Your task to perform on an android device: Open notification settings Image 0: 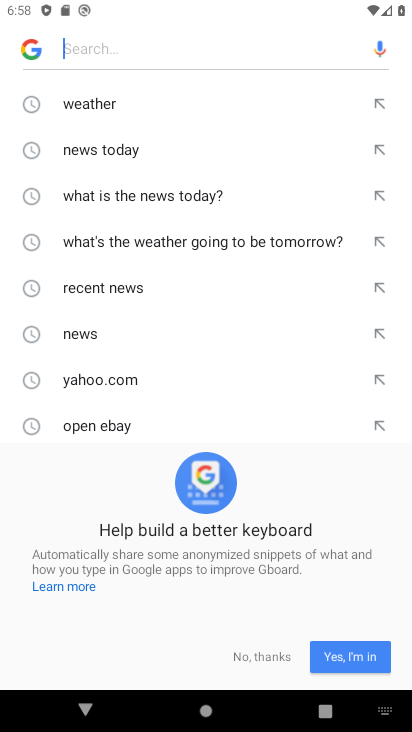
Step 0: press home button
Your task to perform on an android device: Open notification settings Image 1: 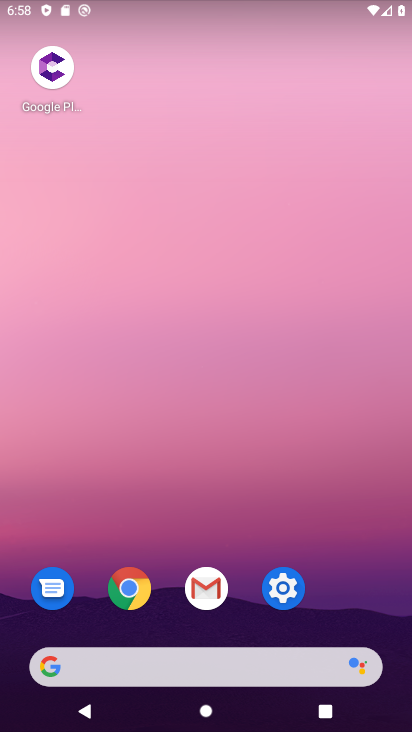
Step 1: drag from (254, 700) to (214, 258)
Your task to perform on an android device: Open notification settings Image 2: 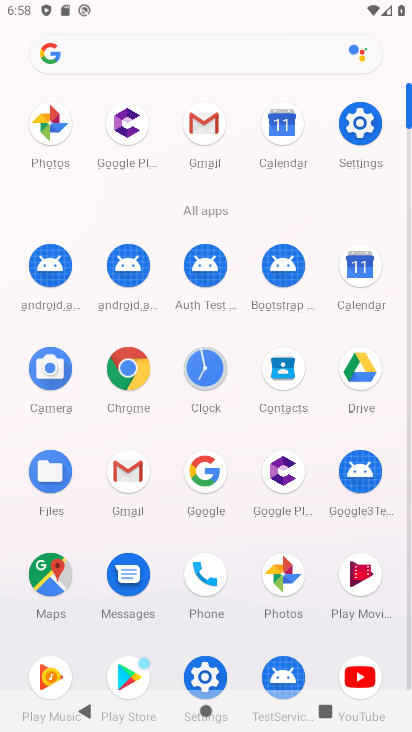
Step 2: click (368, 127)
Your task to perform on an android device: Open notification settings Image 3: 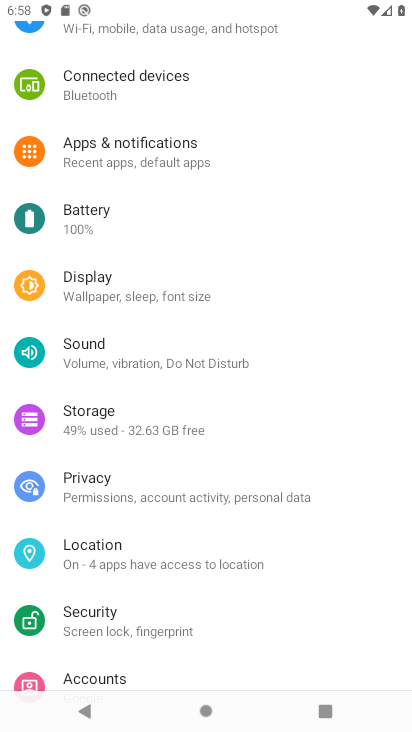
Step 3: drag from (150, 134) to (147, 343)
Your task to perform on an android device: Open notification settings Image 4: 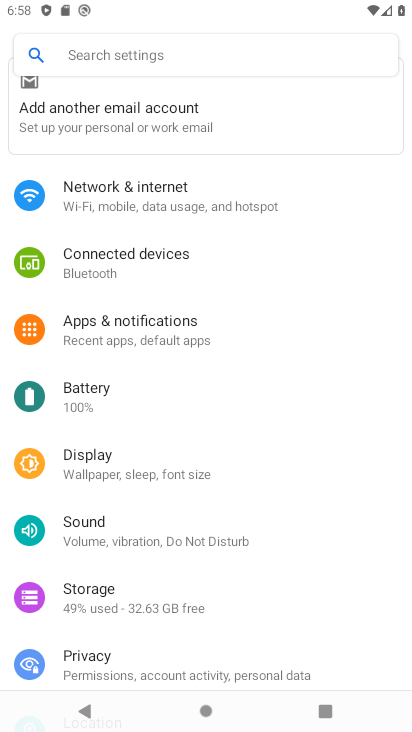
Step 4: click (141, 65)
Your task to perform on an android device: Open notification settings Image 5: 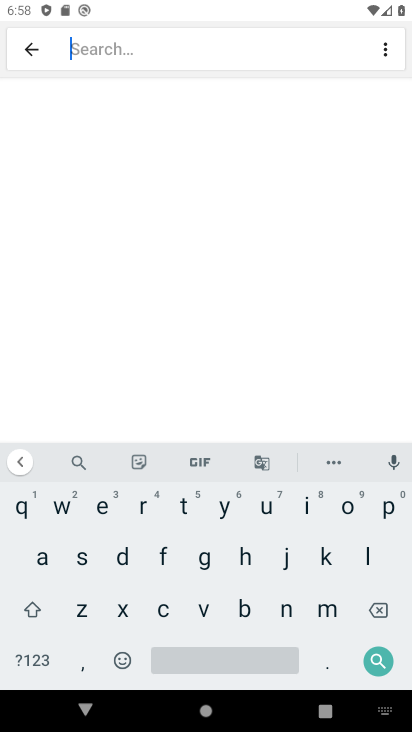
Step 5: click (285, 611)
Your task to perform on an android device: Open notification settings Image 6: 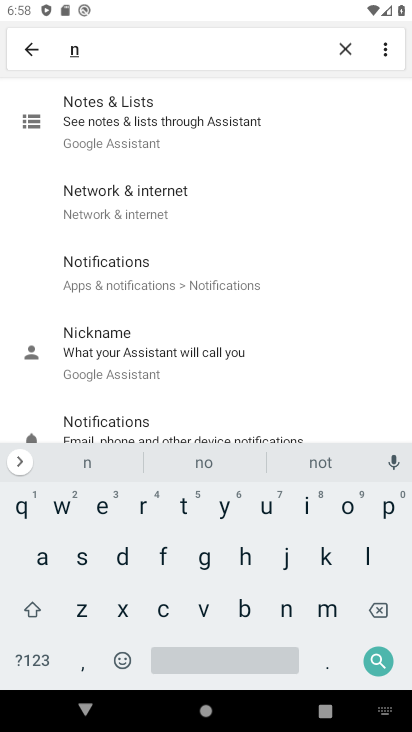
Step 6: click (338, 507)
Your task to perform on an android device: Open notification settings Image 7: 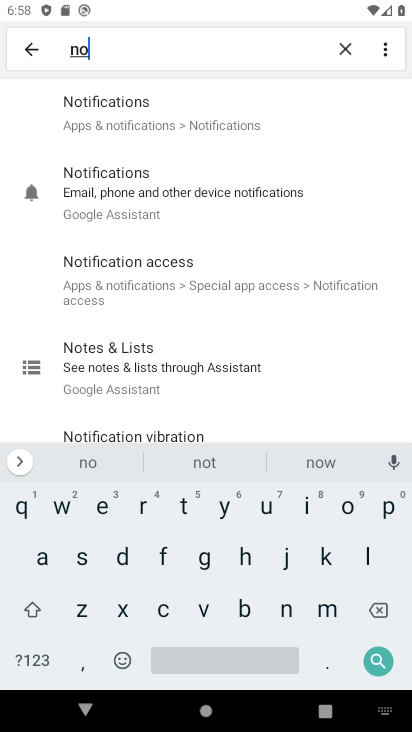
Step 7: click (133, 131)
Your task to perform on an android device: Open notification settings Image 8: 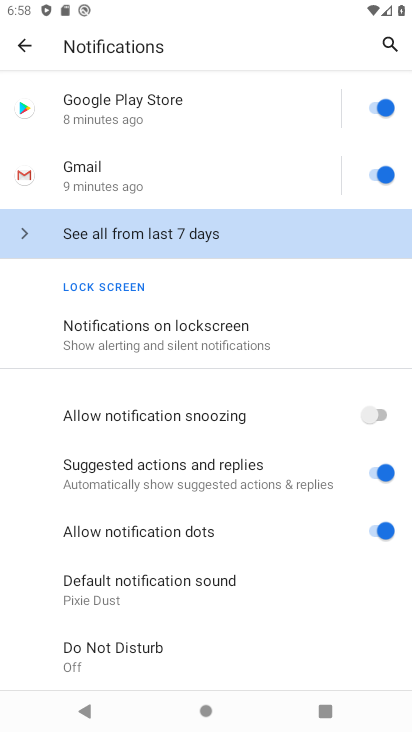
Step 8: click (126, 335)
Your task to perform on an android device: Open notification settings Image 9: 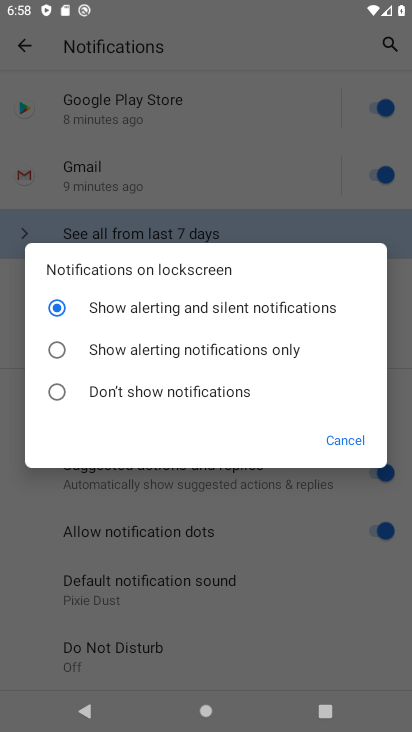
Step 9: task complete